Your task to perform on an android device: all mails in gmail Image 0: 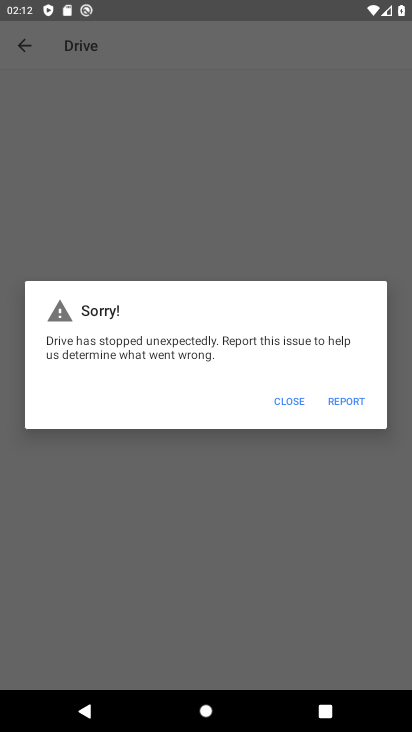
Step 0: press home button
Your task to perform on an android device: all mails in gmail Image 1: 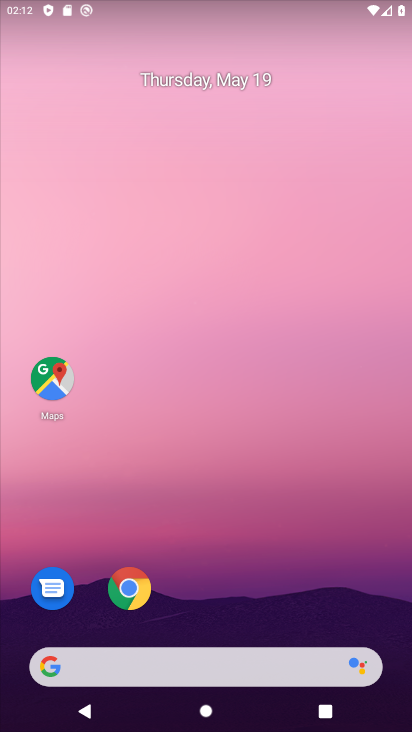
Step 1: drag from (214, 589) to (266, 56)
Your task to perform on an android device: all mails in gmail Image 2: 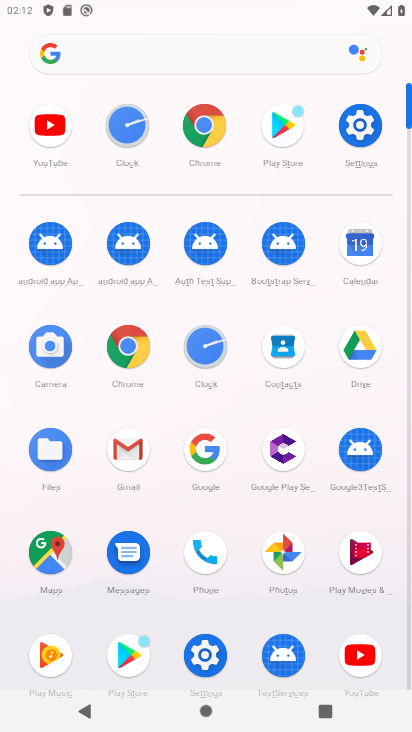
Step 2: click (130, 443)
Your task to perform on an android device: all mails in gmail Image 3: 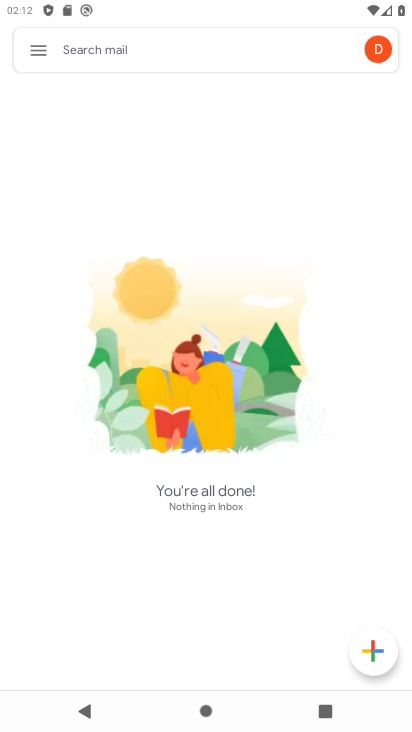
Step 3: click (32, 49)
Your task to perform on an android device: all mails in gmail Image 4: 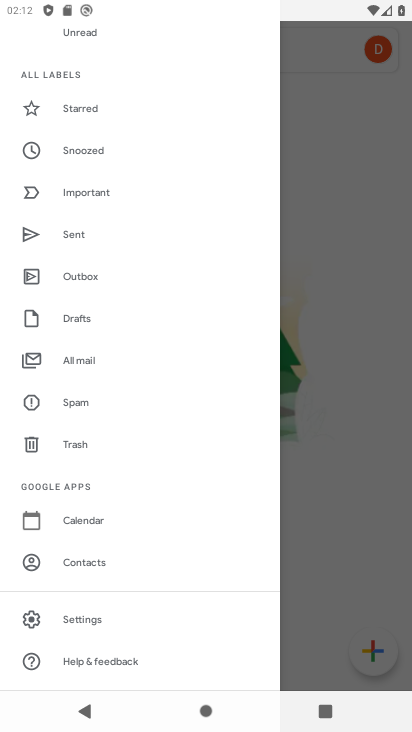
Step 4: click (84, 349)
Your task to perform on an android device: all mails in gmail Image 5: 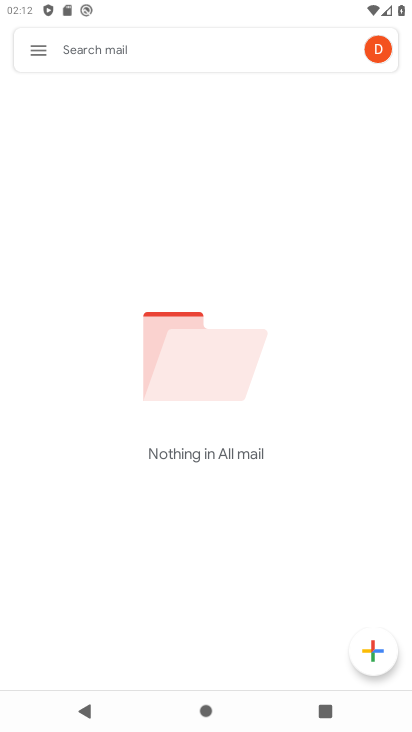
Step 5: task complete